Your task to perform on an android device: Play the last video I watched on Youtube Image 0: 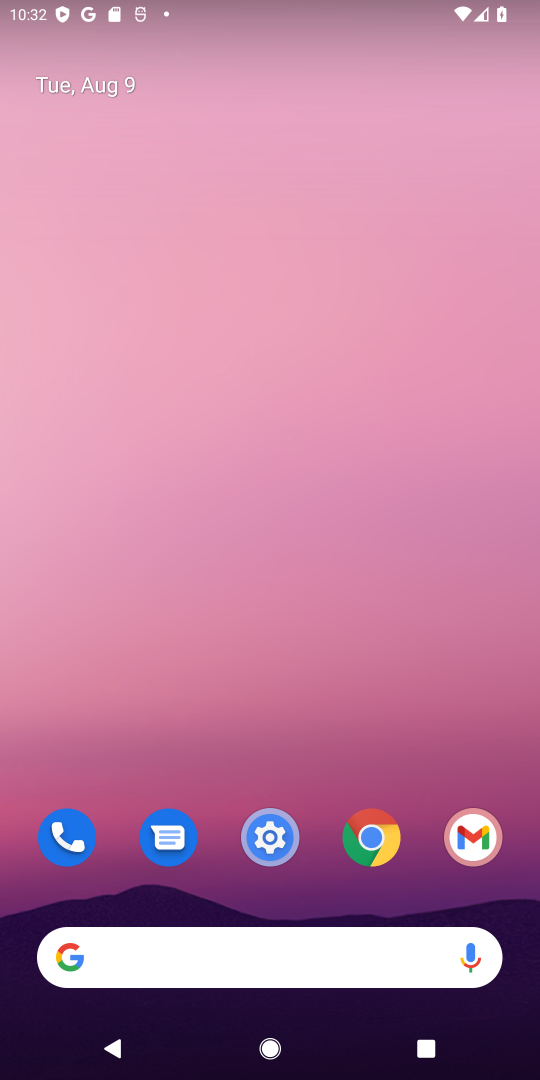
Step 0: drag from (337, 910) to (339, 153)
Your task to perform on an android device: Play the last video I watched on Youtube Image 1: 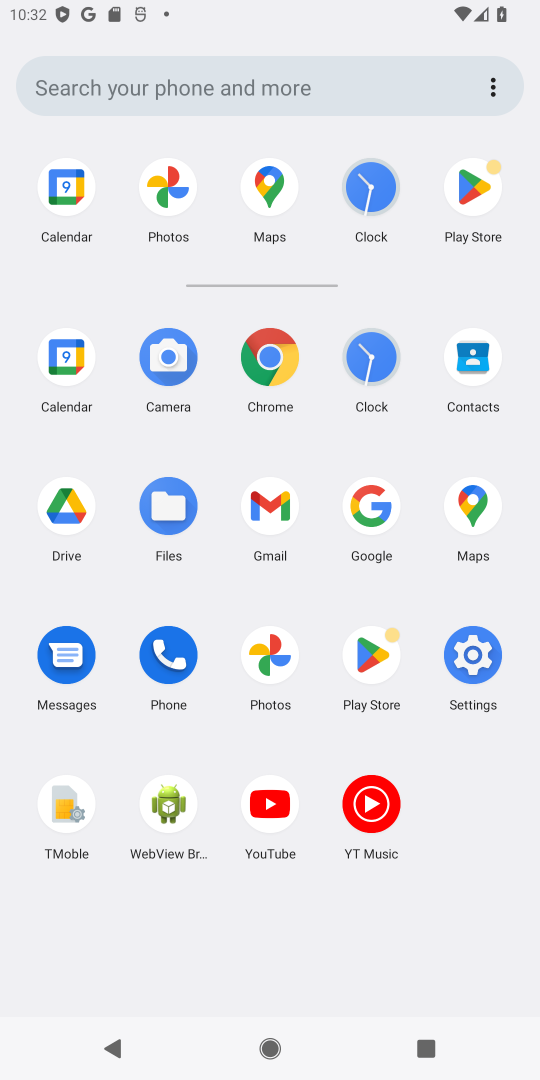
Step 1: click (272, 800)
Your task to perform on an android device: Play the last video I watched on Youtube Image 2: 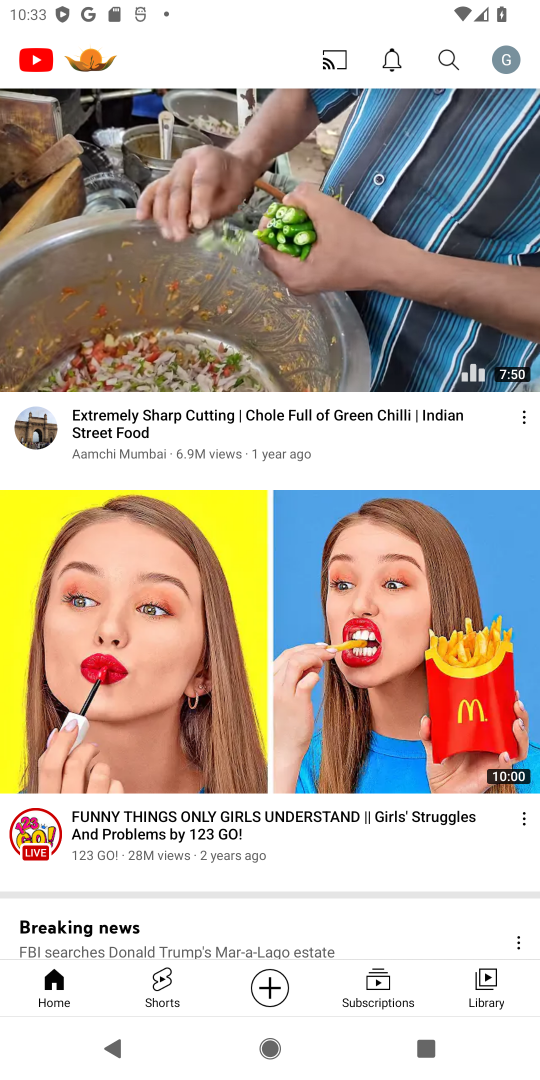
Step 2: click (489, 980)
Your task to perform on an android device: Play the last video I watched on Youtube Image 3: 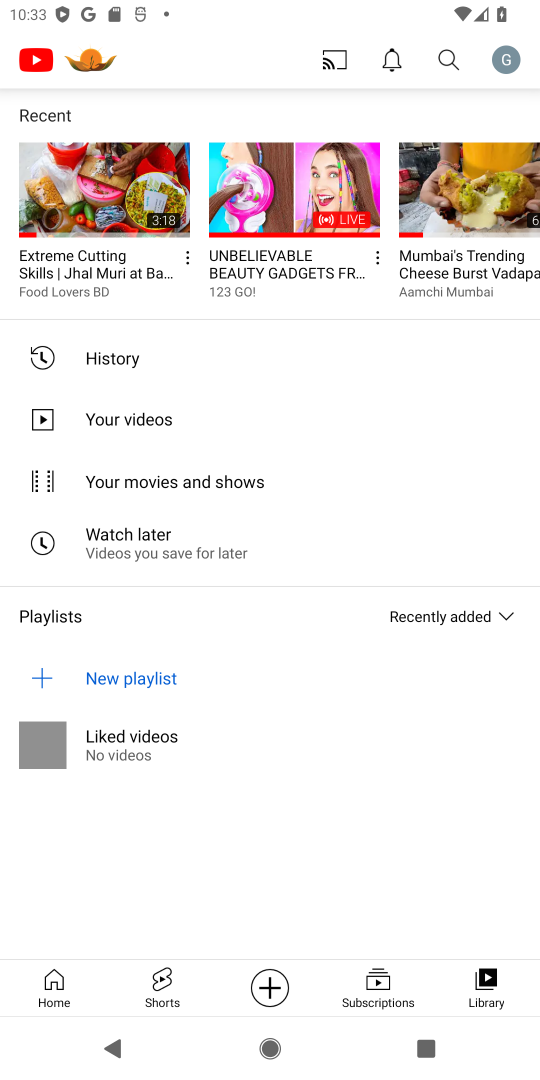
Step 3: click (82, 206)
Your task to perform on an android device: Play the last video I watched on Youtube Image 4: 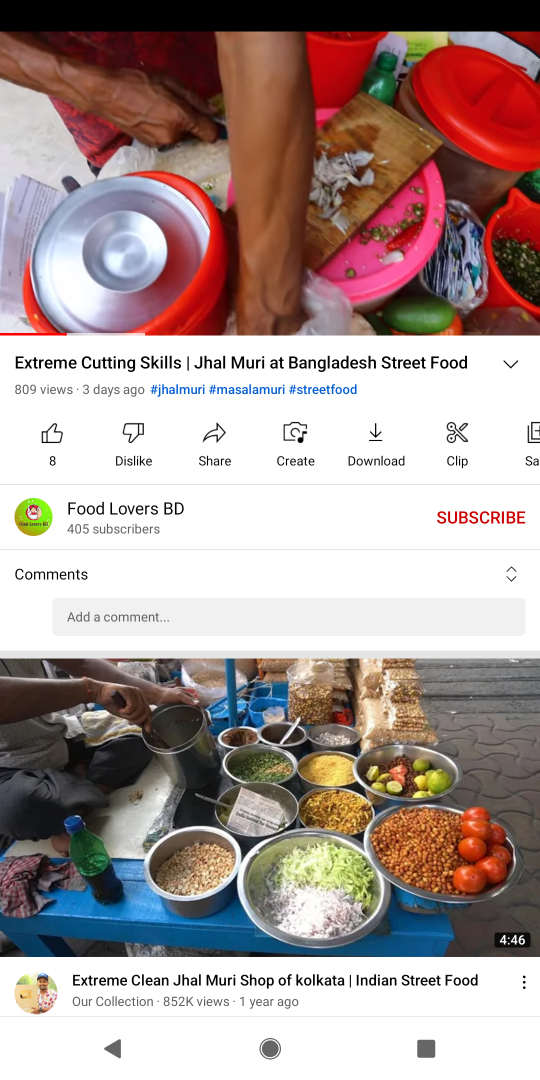
Step 4: task complete